Your task to perform on an android device: Show me productivity apps on the Play Store Image 0: 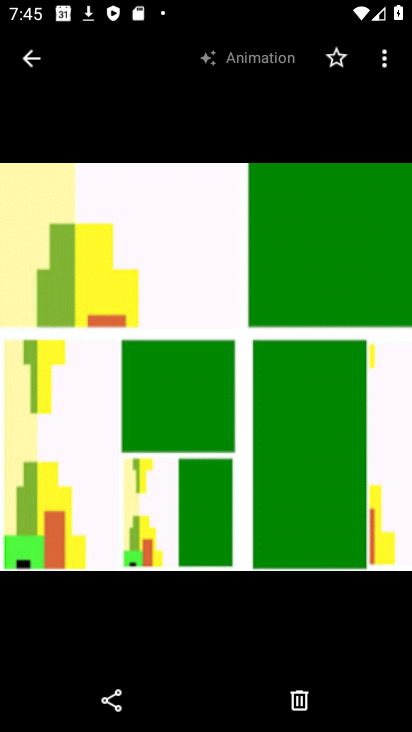
Step 0: press home button
Your task to perform on an android device: Show me productivity apps on the Play Store Image 1: 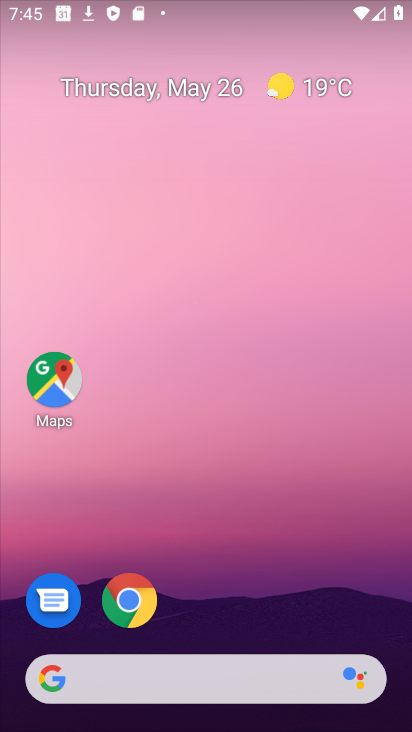
Step 1: drag from (246, 715) to (193, 256)
Your task to perform on an android device: Show me productivity apps on the Play Store Image 2: 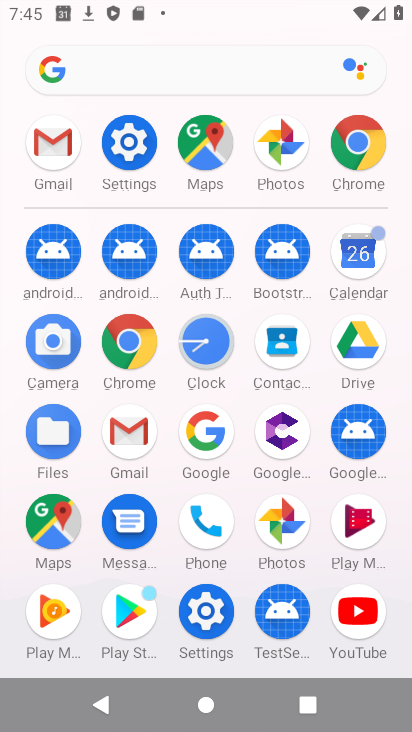
Step 2: click (132, 600)
Your task to perform on an android device: Show me productivity apps on the Play Store Image 3: 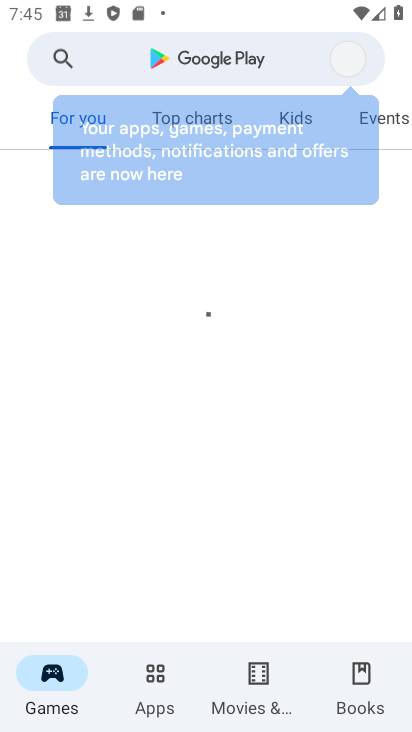
Step 3: click (213, 72)
Your task to perform on an android device: Show me productivity apps on the Play Store Image 4: 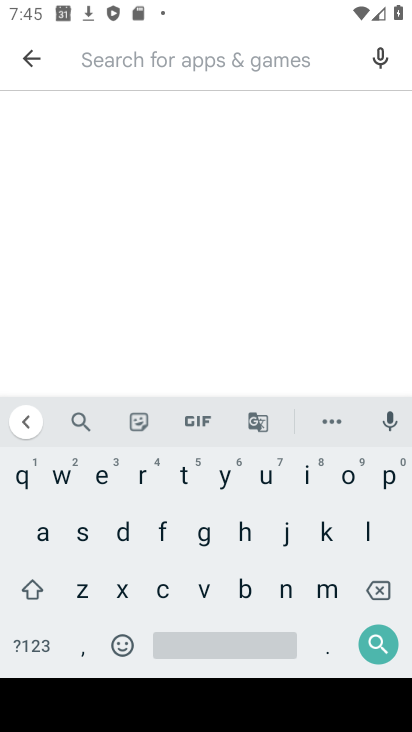
Step 4: click (378, 475)
Your task to perform on an android device: Show me productivity apps on the Play Store Image 5: 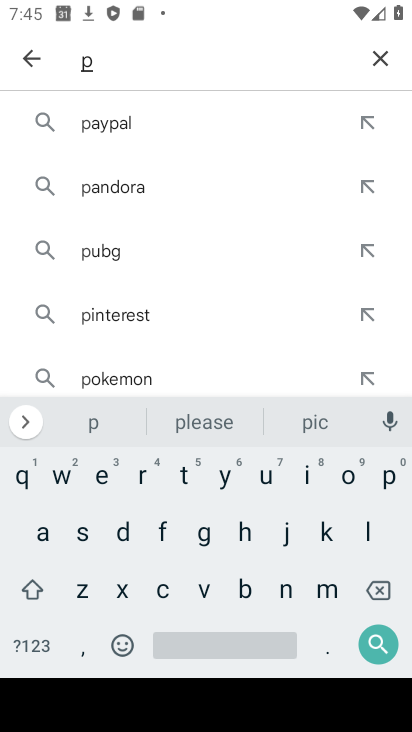
Step 5: click (139, 480)
Your task to perform on an android device: Show me productivity apps on the Play Store Image 6: 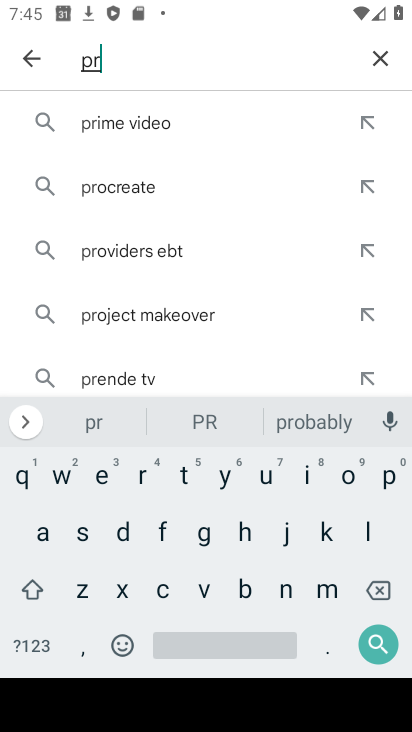
Step 6: click (345, 477)
Your task to perform on an android device: Show me productivity apps on the Play Store Image 7: 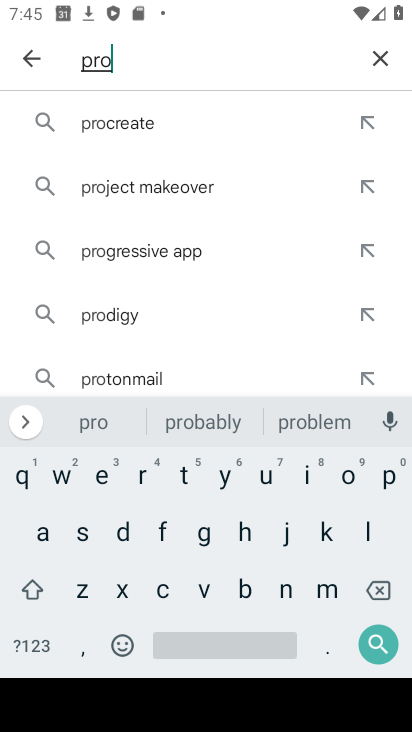
Step 7: click (117, 530)
Your task to perform on an android device: Show me productivity apps on the Play Store Image 8: 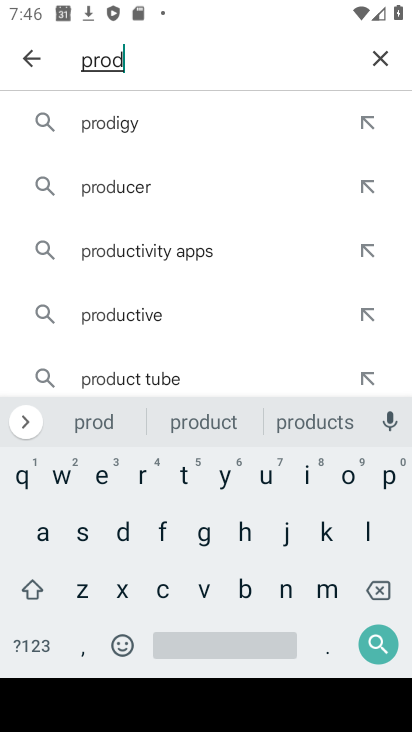
Step 8: click (257, 470)
Your task to perform on an android device: Show me productivity apps on the Play Store Image 9: 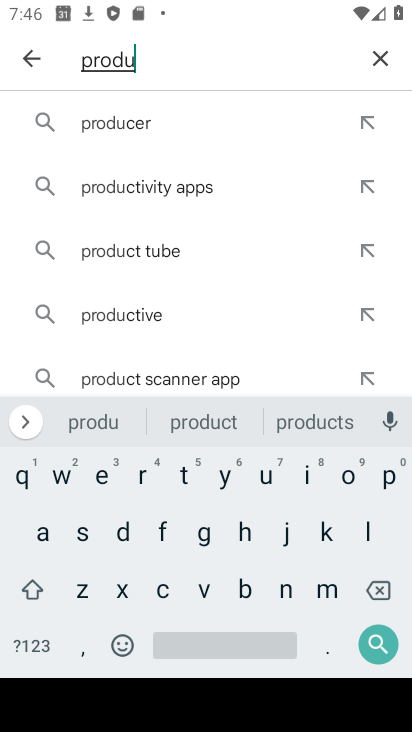
Step 9: click (156, 593)
Your task to perform on an android device: Show me productivity apps on the Play Store Image 10: 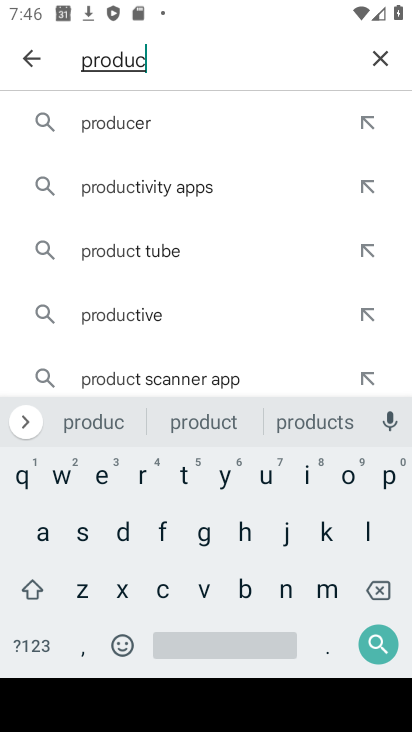
Step 10: click (185, 474)
Your task to perform on an android device: Show me productivity apps on the Play Store Image 11: 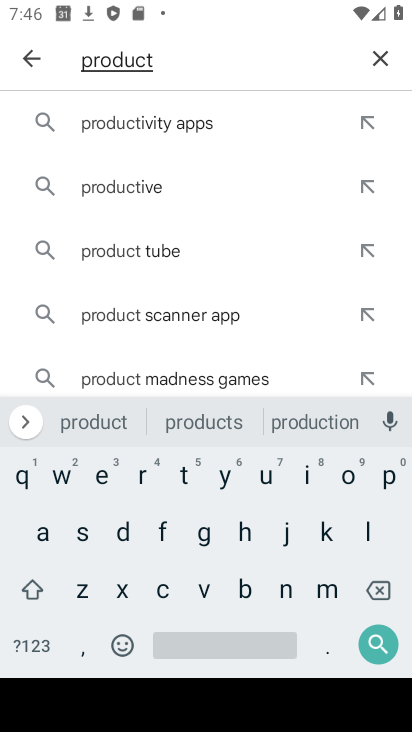
Step 11: click (306, 475)
Your task to perform on an android device: Show me productivity apps on the Play Store Image 12: 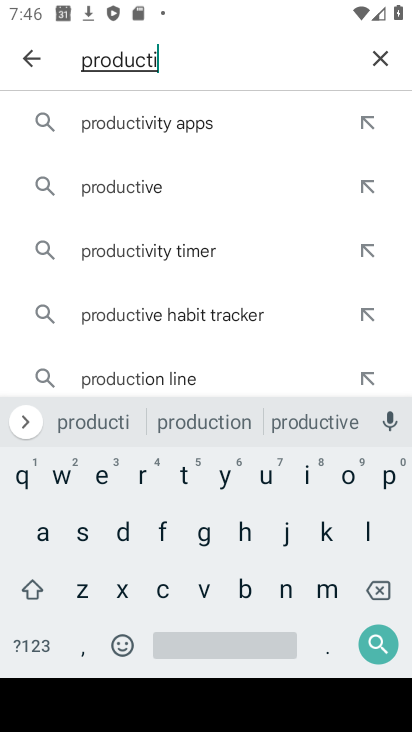
Step 12: click (177, 125)
Your task to perform on an android device: Show me productivity apps on the Play Store Image 13: 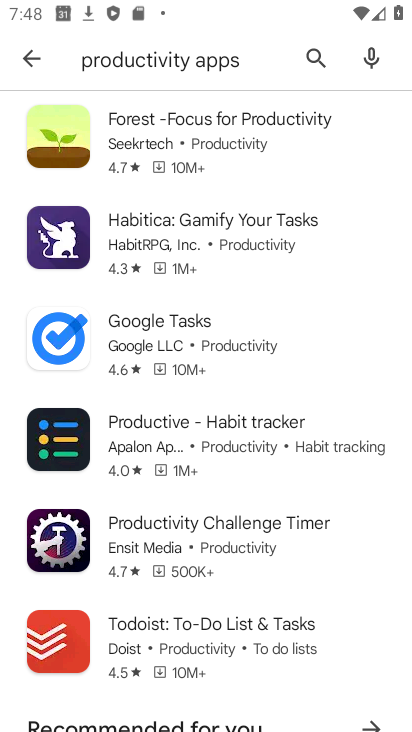
Step 13: task complete